Your task to perform on an android device: Show me the best rated vacuum on Walmart. Image 0: 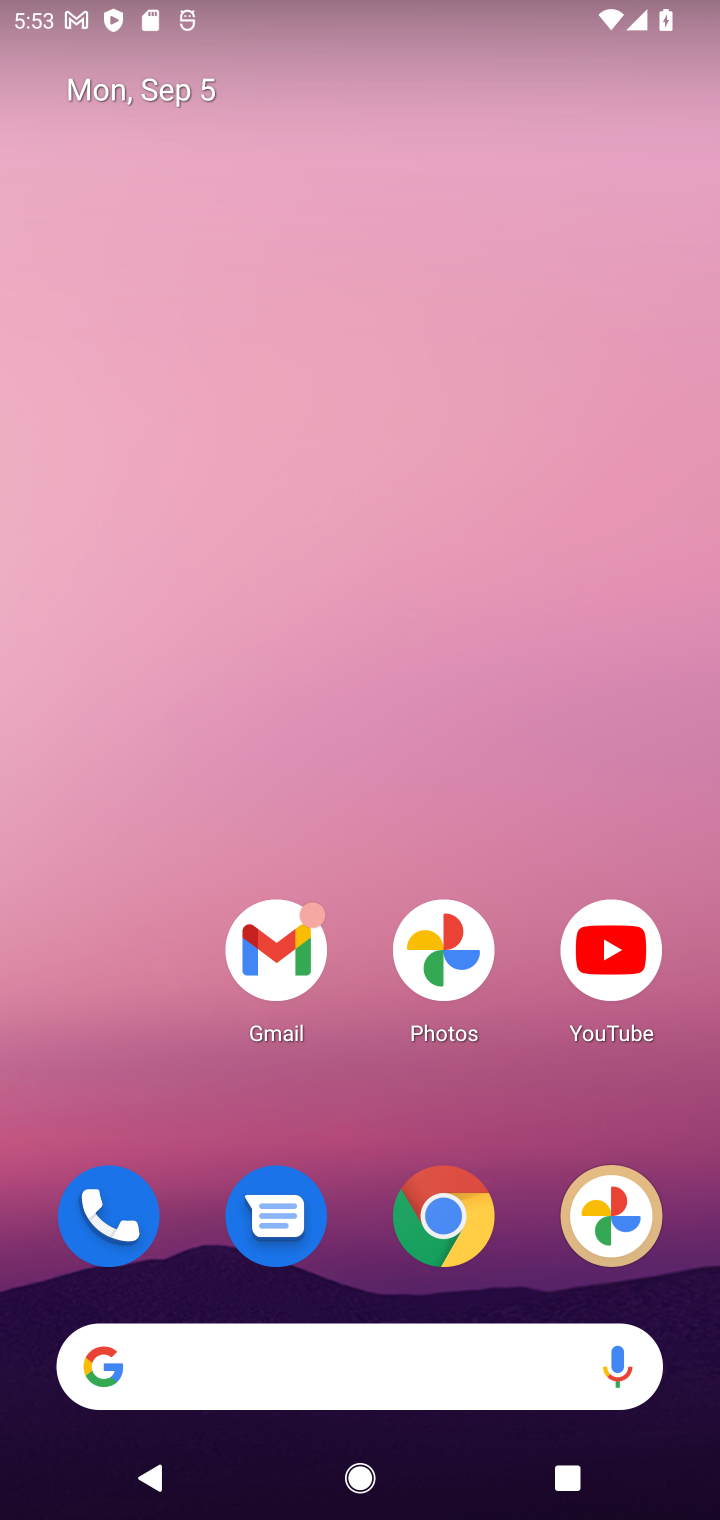
Step 0: click (431, 1225)
Your task to perform on an android device: Show me the best rated vacuum on Walmart. Image 1: 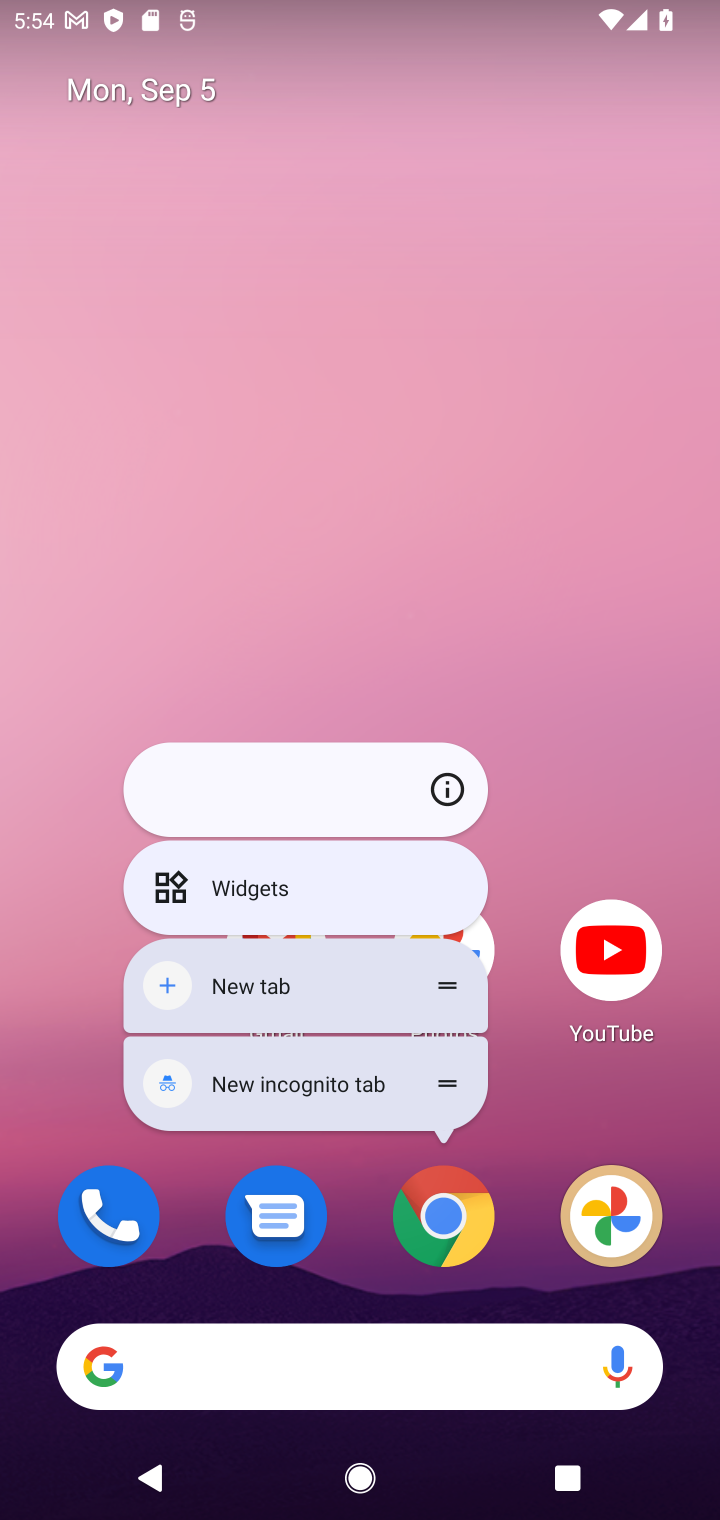
Step 1: click (437, 1200)
Your task to perform on an android device: Show me the best rated vacuum on Walmart. Image 2: 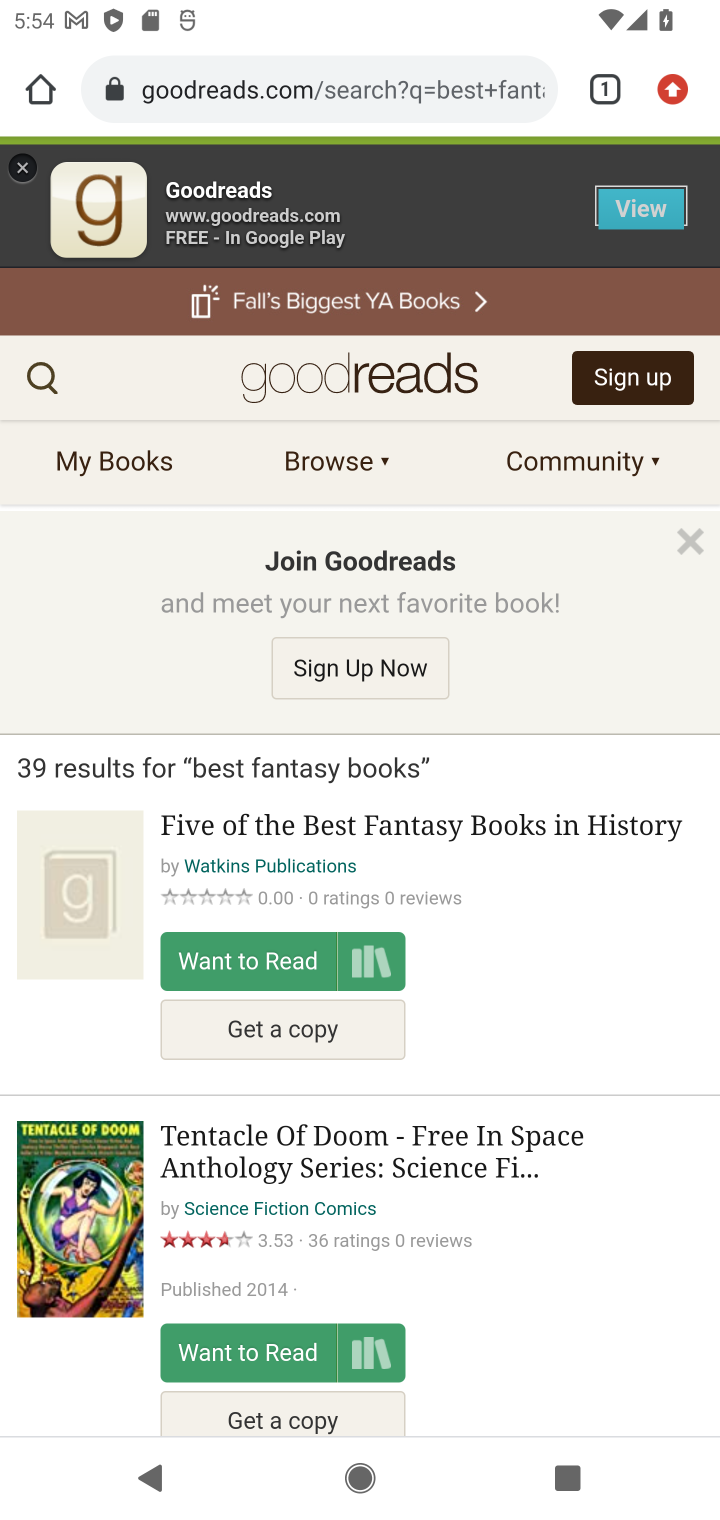
Step 2: click (392, 109)
Your task to perform on an android device: Show me the best rated vacuum on Walmart. Image 3: 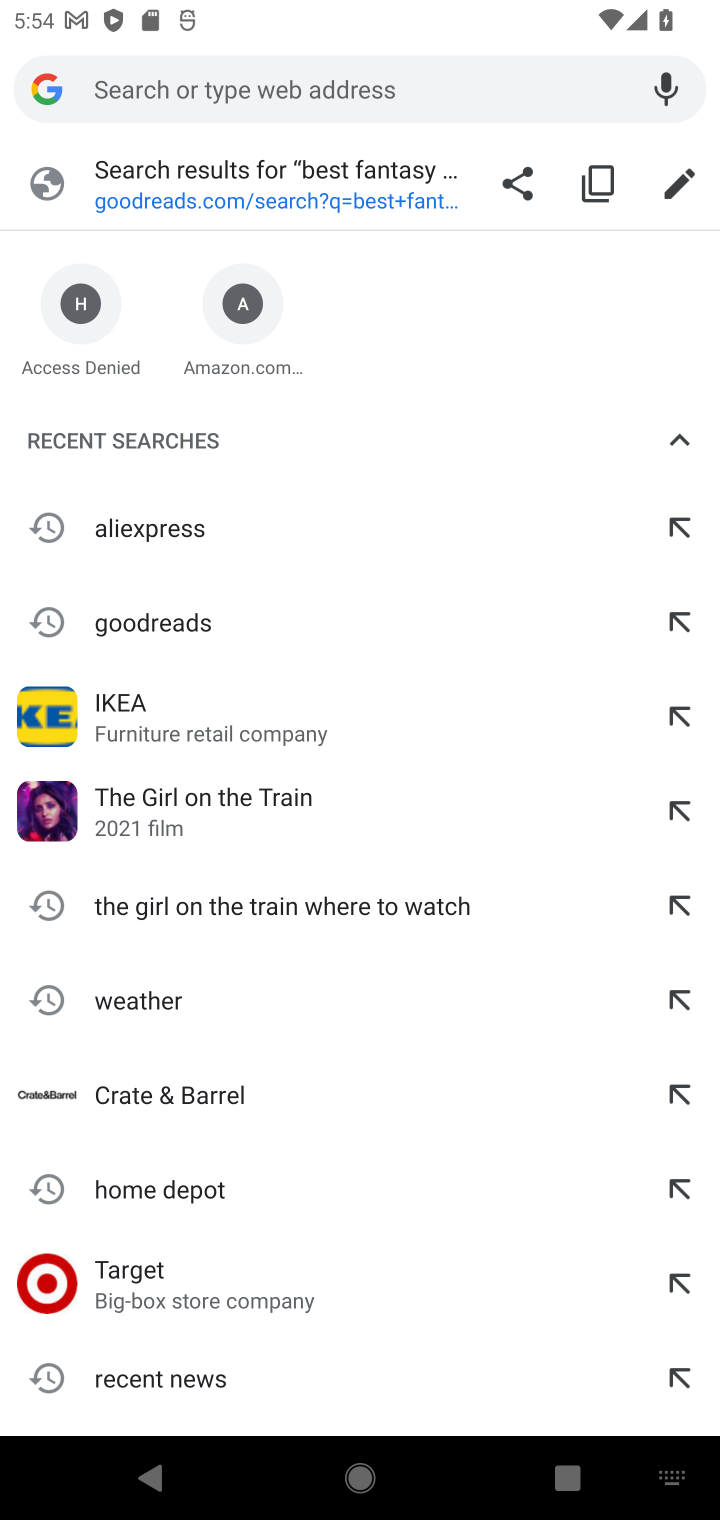
Step 3: type "walmart"
Your task to perform on an android device: Show me the best rated vacuum on Walmart. Image 4: 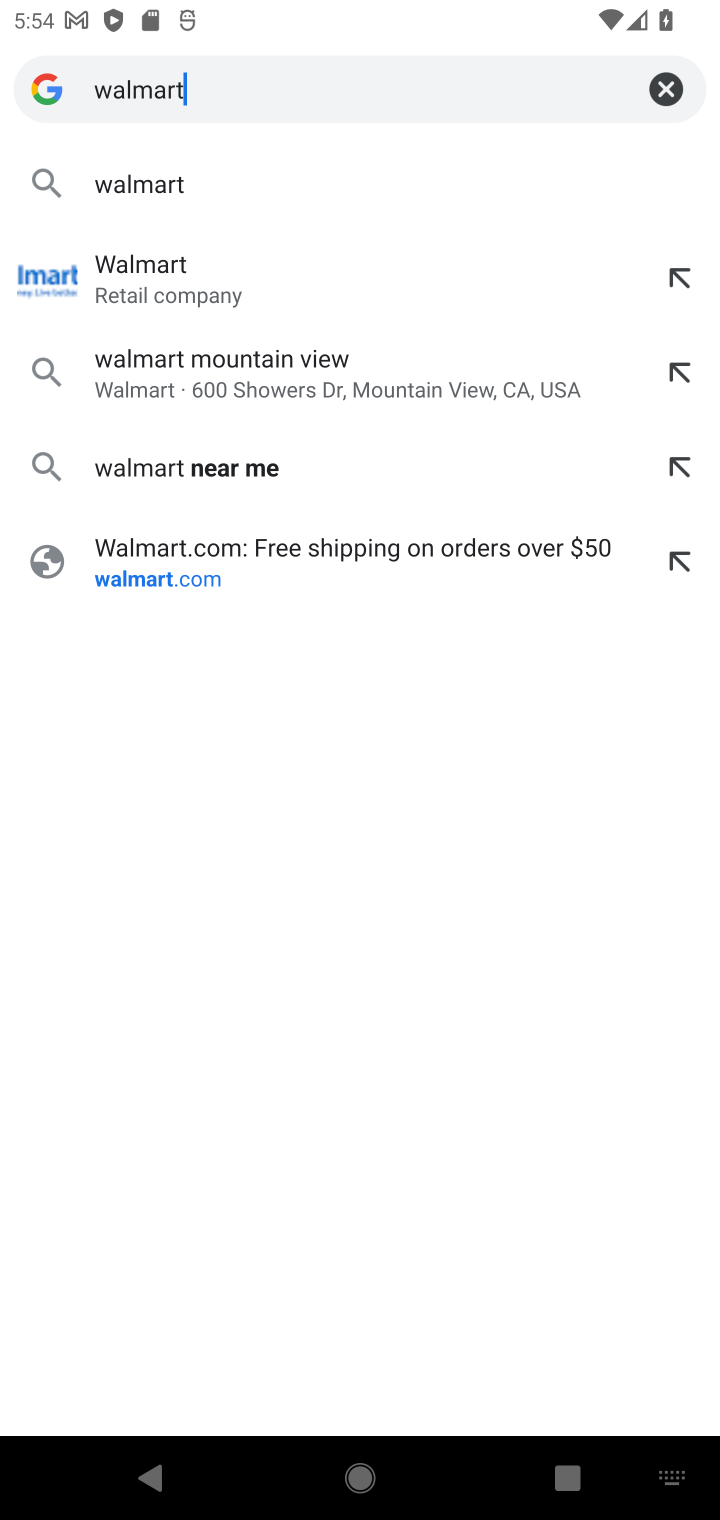
Step 4: click (188, 266)
Your task to perform on an android device: Show me the best rated vacuum on Walmart. Image 5: 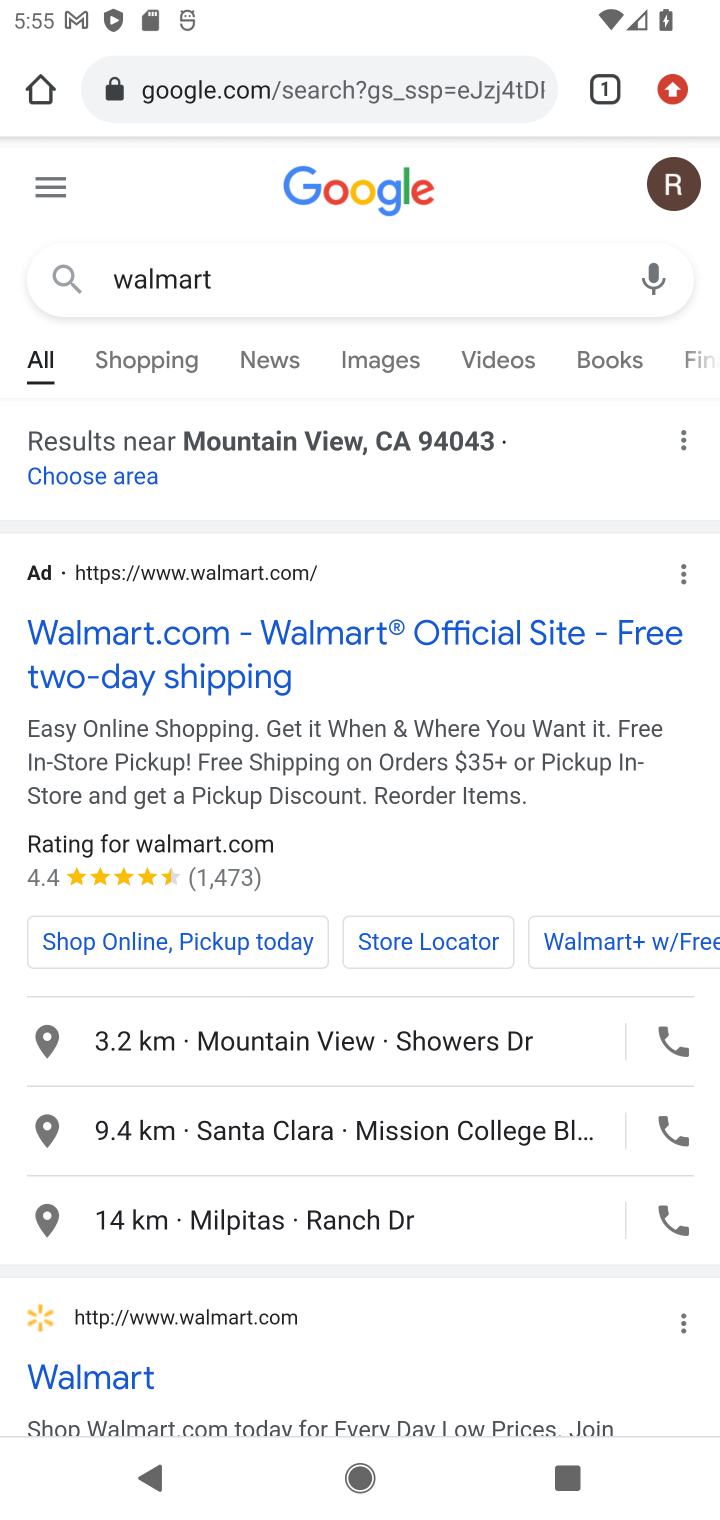
Step 5: drag from (564, 799) to (490, 432)
Your task to perform on an android device: Show me the best rated vacuum on Walmart. Image 6: 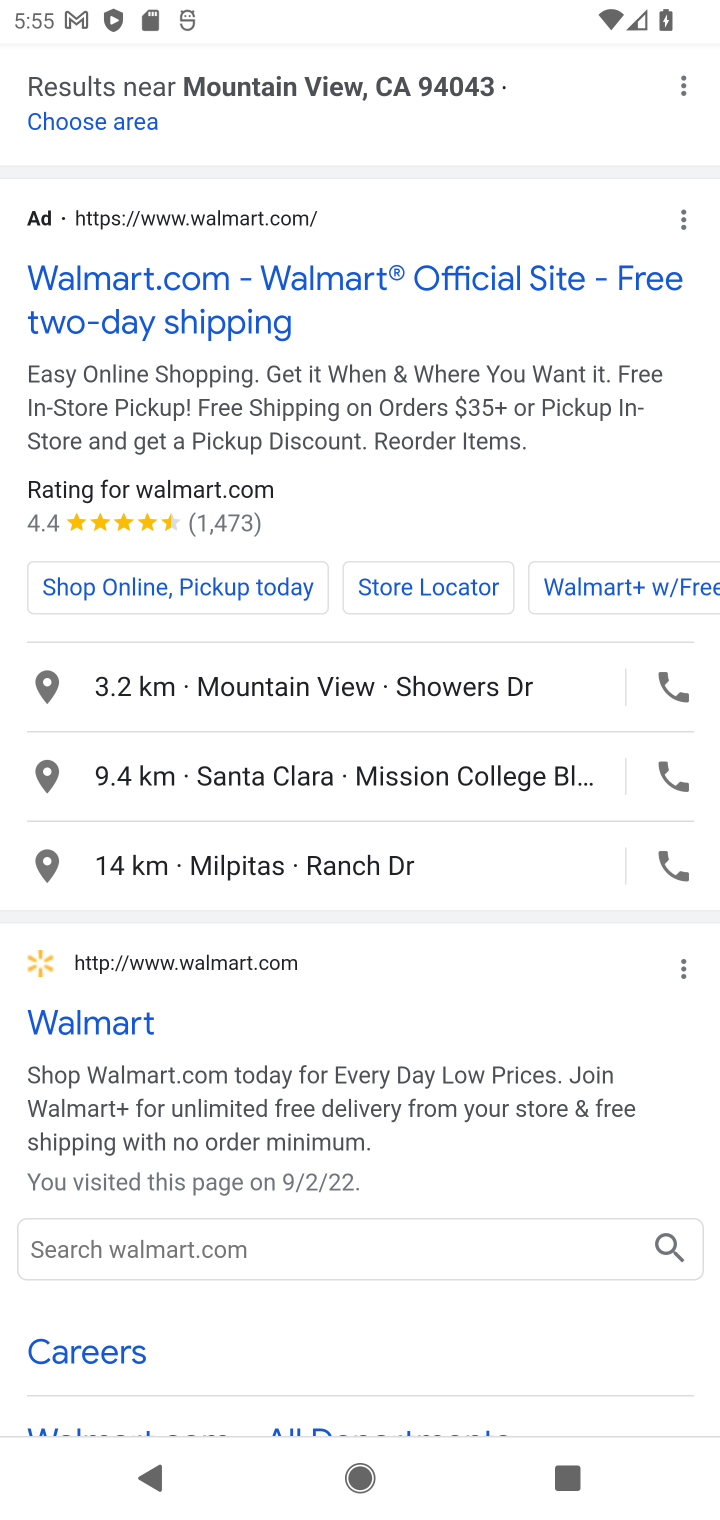
Step 6: click (90, 1026)
Your task to perform on an android device: Show me the best rated vacuum on Walmart. Image 7: 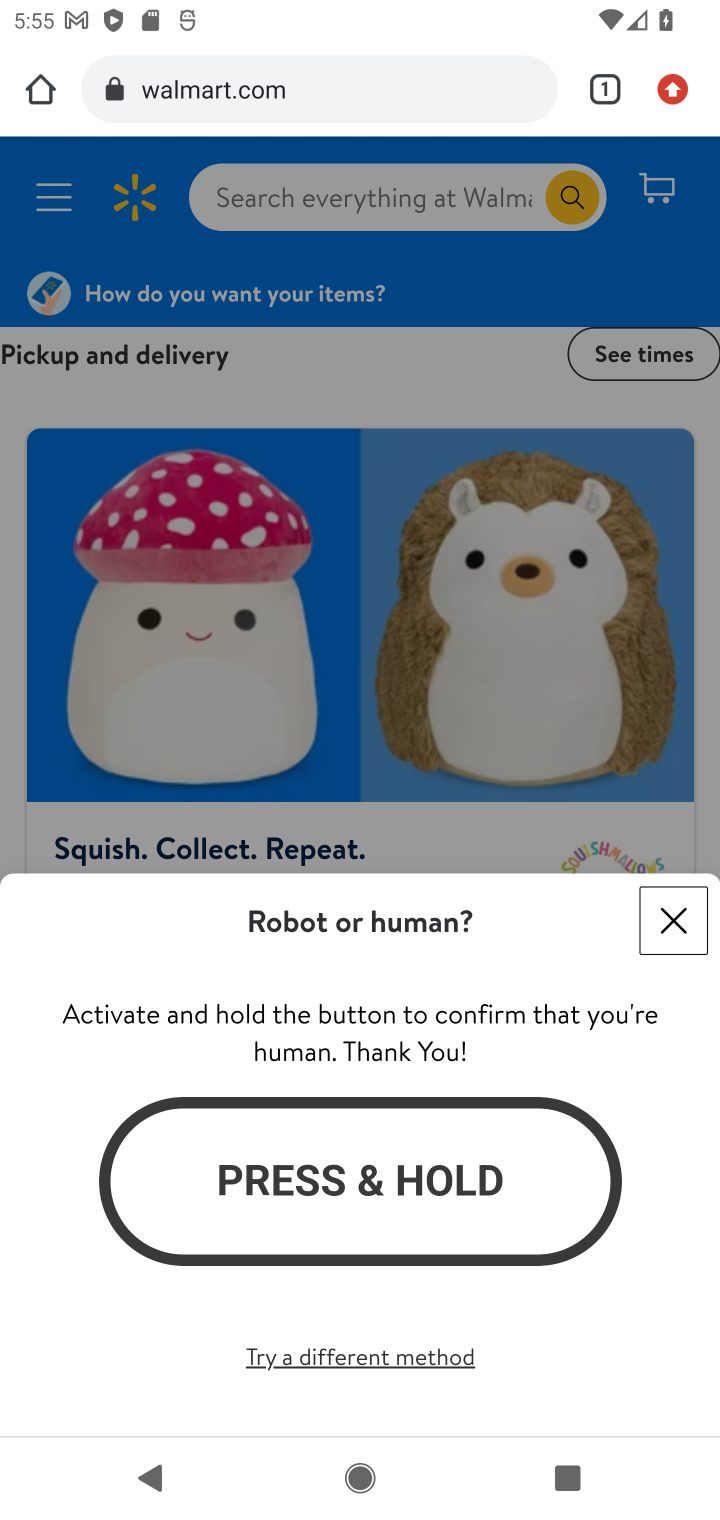
Step 7: click (677, 930)
Your task to perform on an android device: Show me the best rated vacuum on Walmart. Image 8: 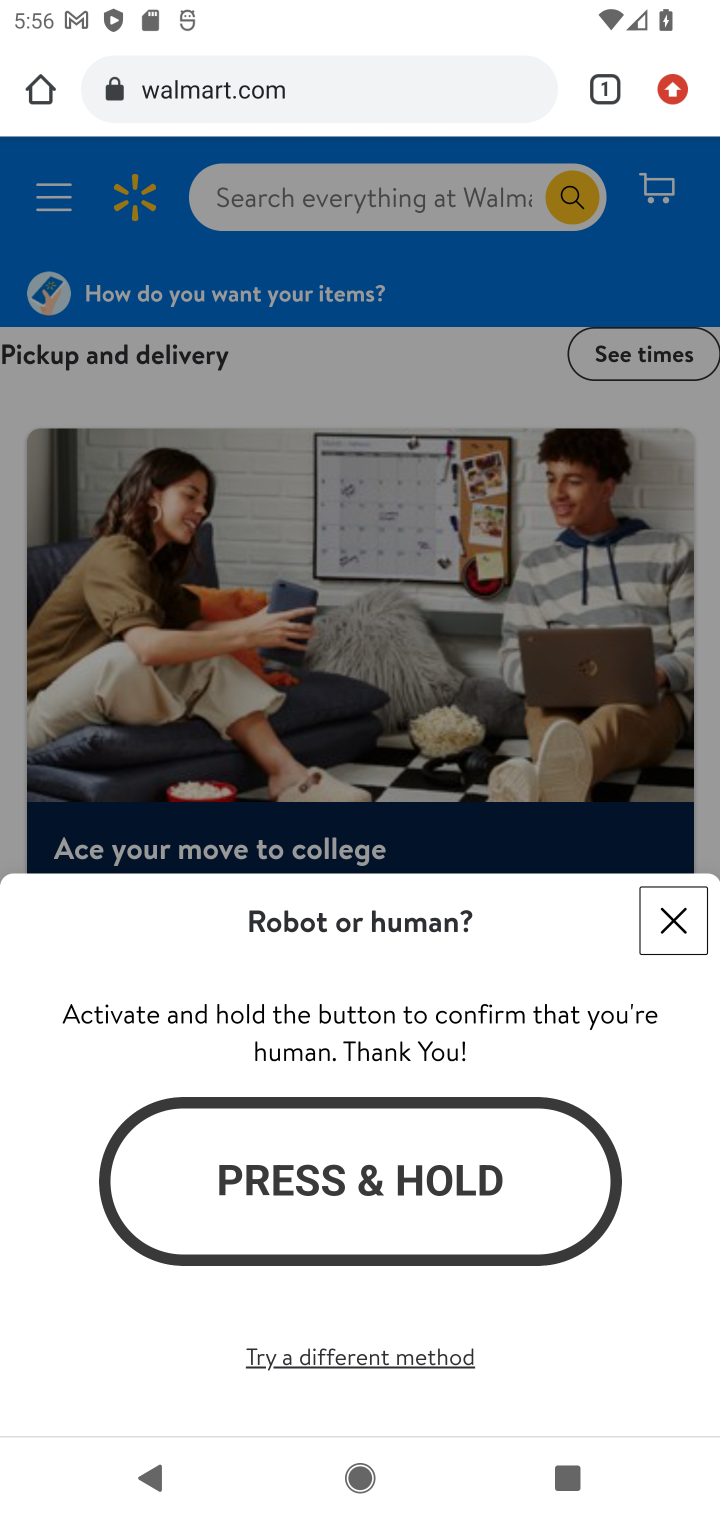
Step 8: click (667, 907)
Your task to perform on an android device: Show me the best rated vacuum on Walmart. Image 9: 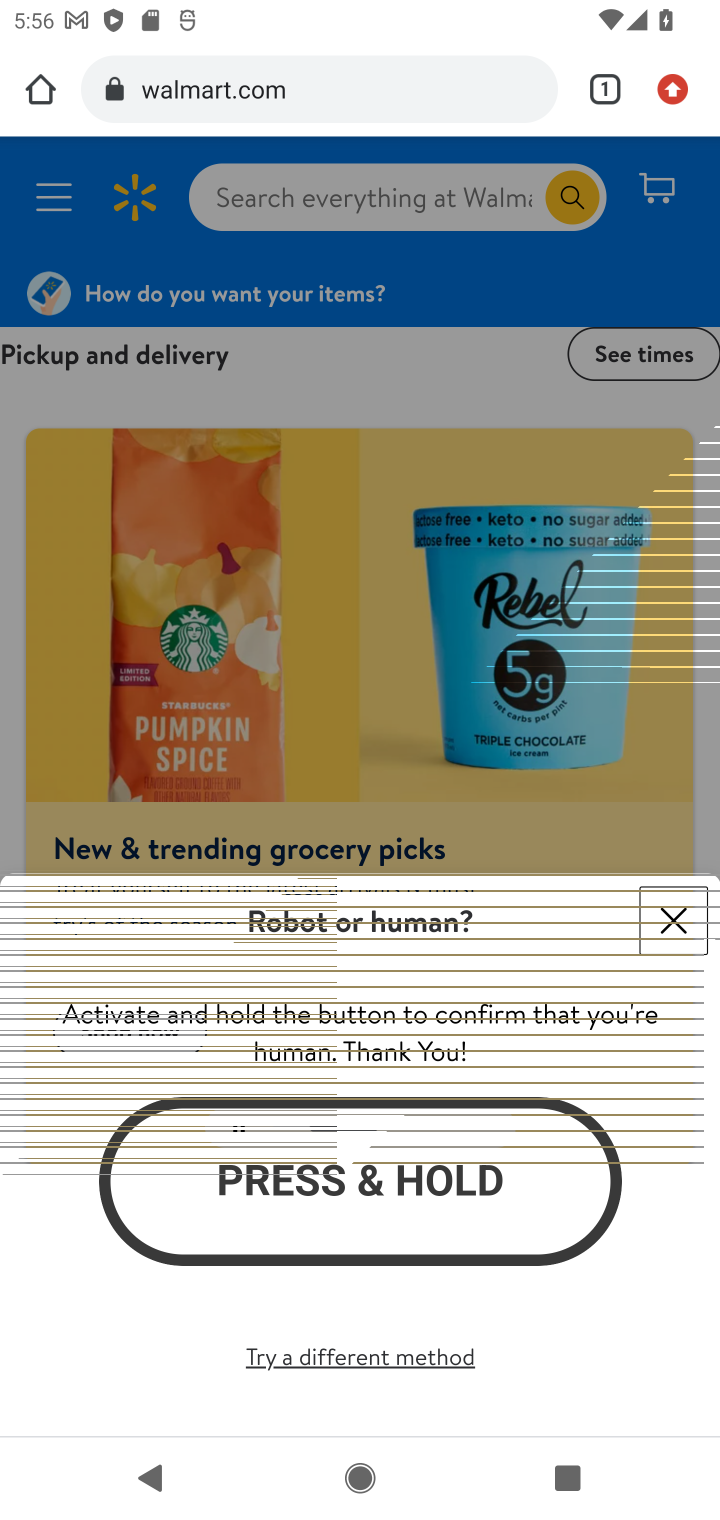
Step 9: click (444, 1152)
Your task to perform on an android device: Show me the best rated vacuum on Walmart. Image 10: 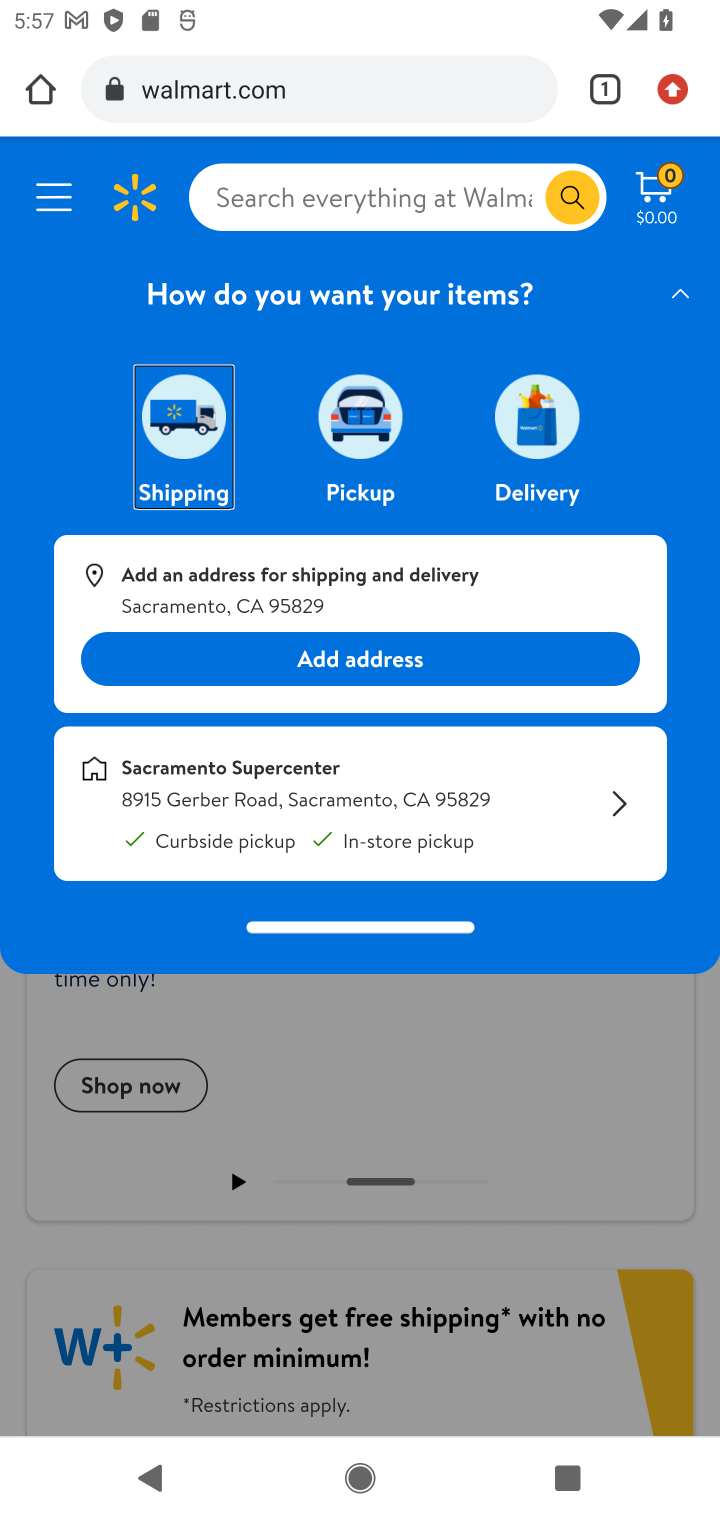
Step 10: click (364, 207)
Your task to perform on an android device: Show me the best rated vacuum on Walmart. Image 11: 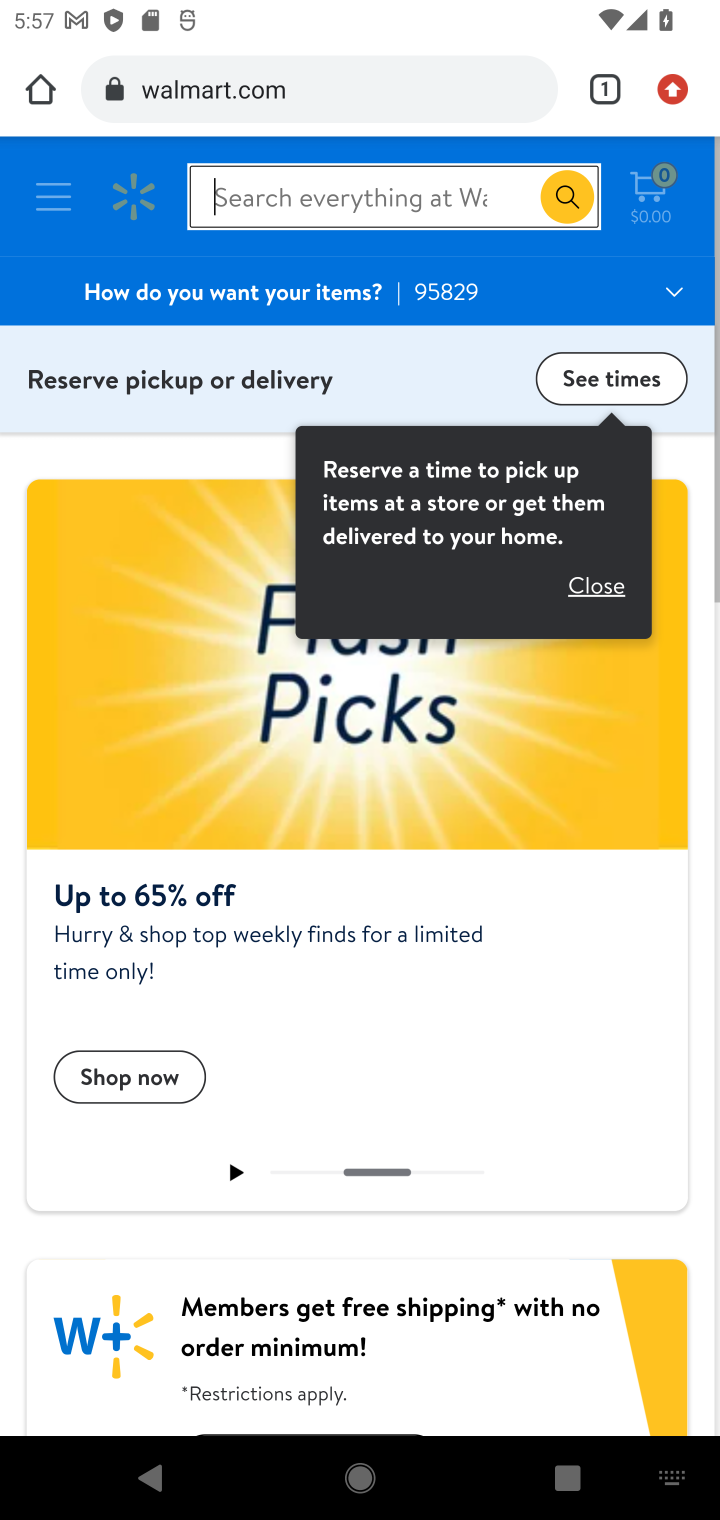
Step 11: click (397, 201)
Your task to perform on an android device: Show me the best rated vacuum on Walmart. Image 12: 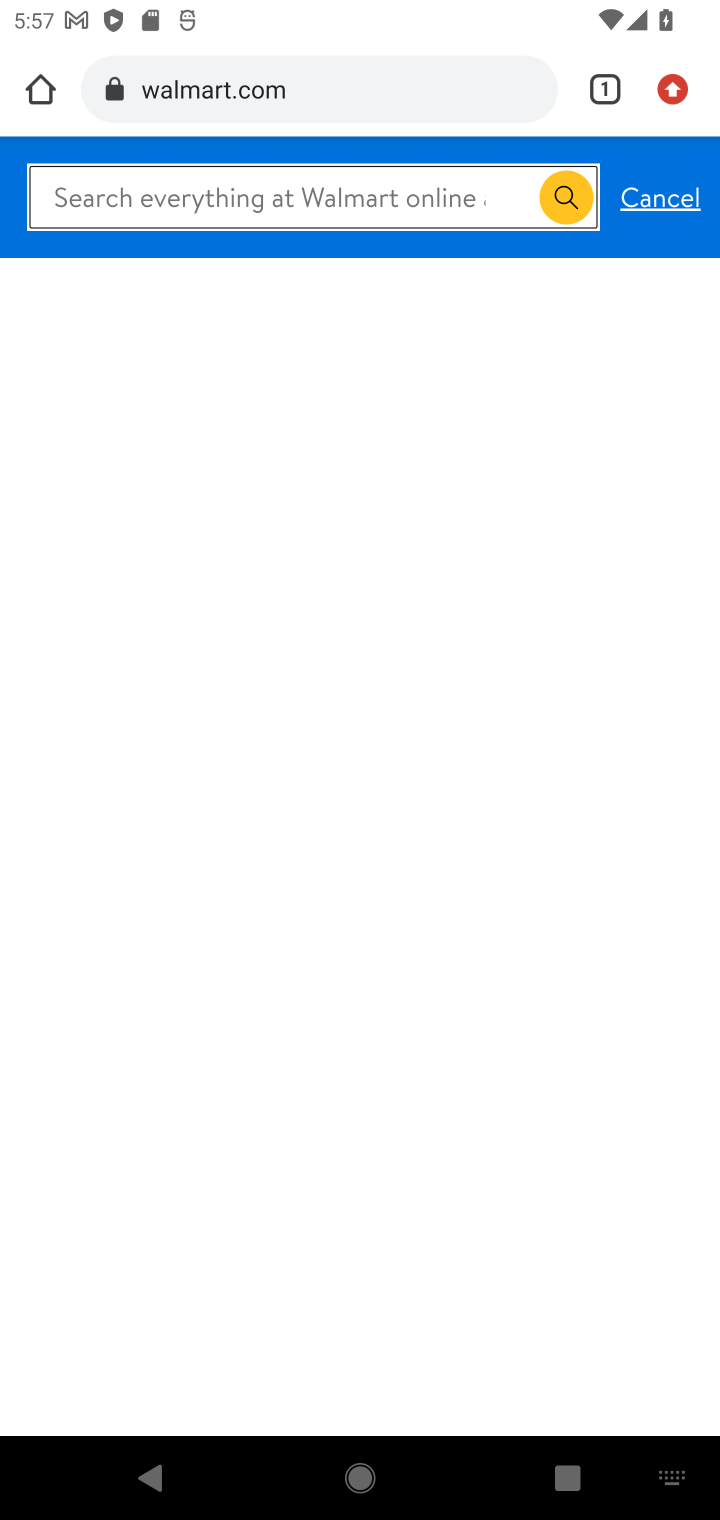
Step 12: type "vacuum"
Your task to perform on an android device: Show me the best rated vacuum on Walmart. Image 13: 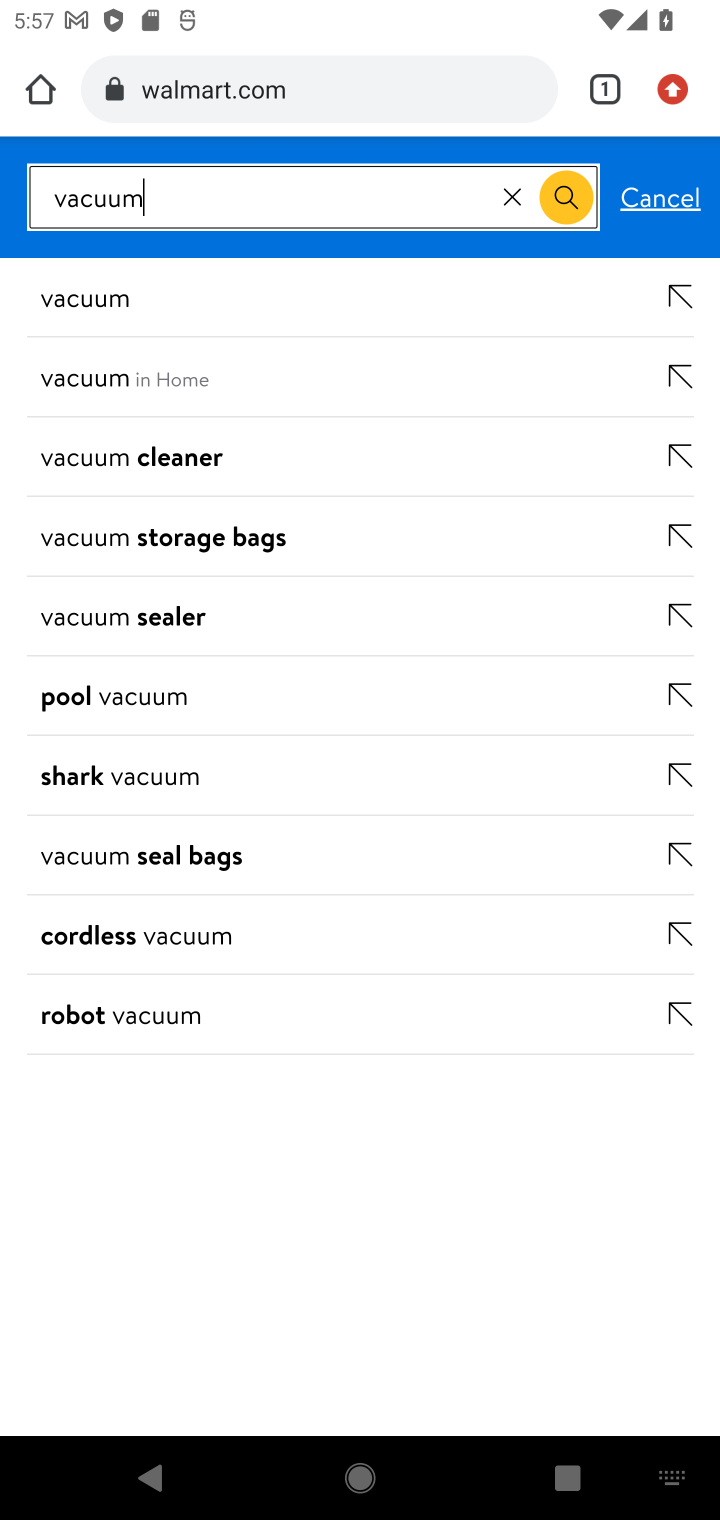
Step 13: click (509, 195)
Your task to perform on an android device: Show me the best rated vacuum on Walmart. Image 14: 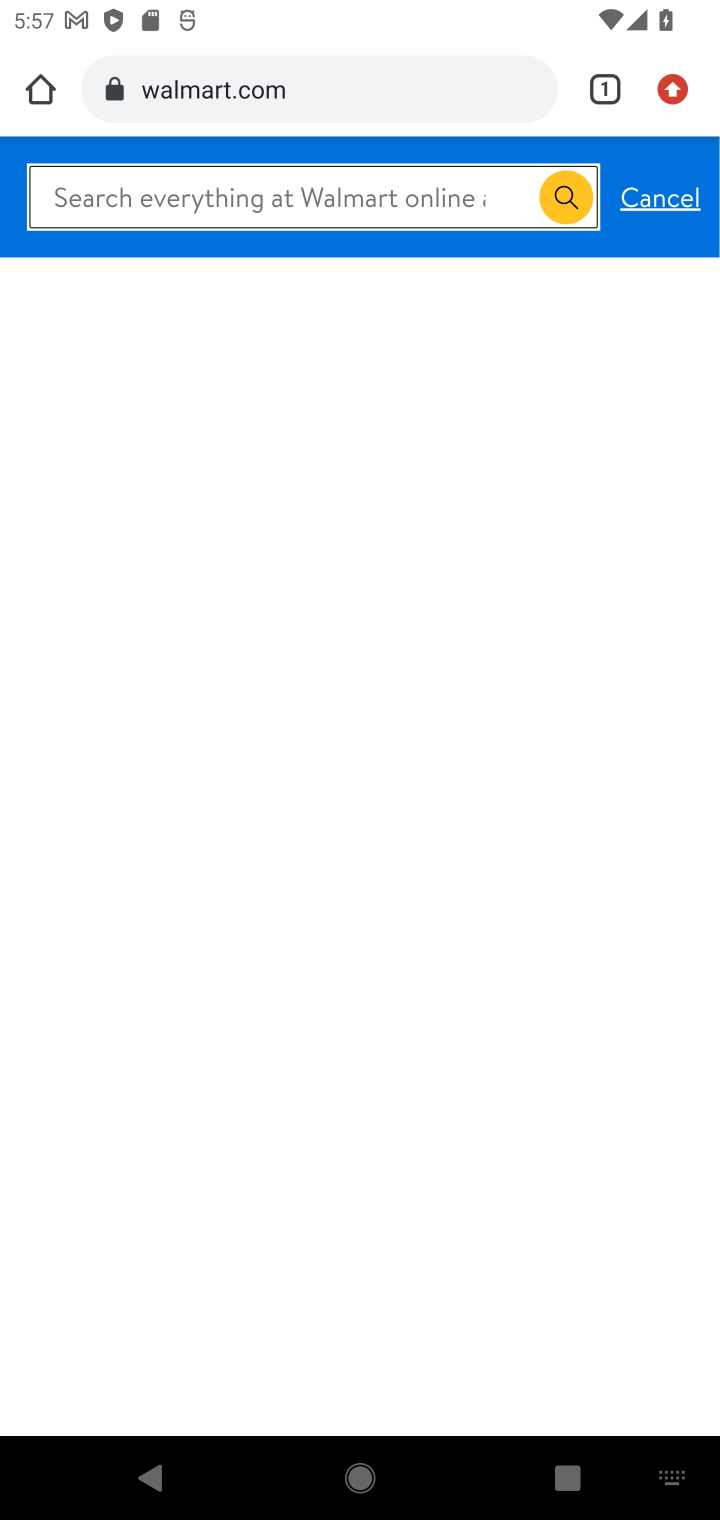
Step 14: type "best rated vacuum"
Your task to perform on an android device: Show me the best rated vacuum on Walmart. Image 15: 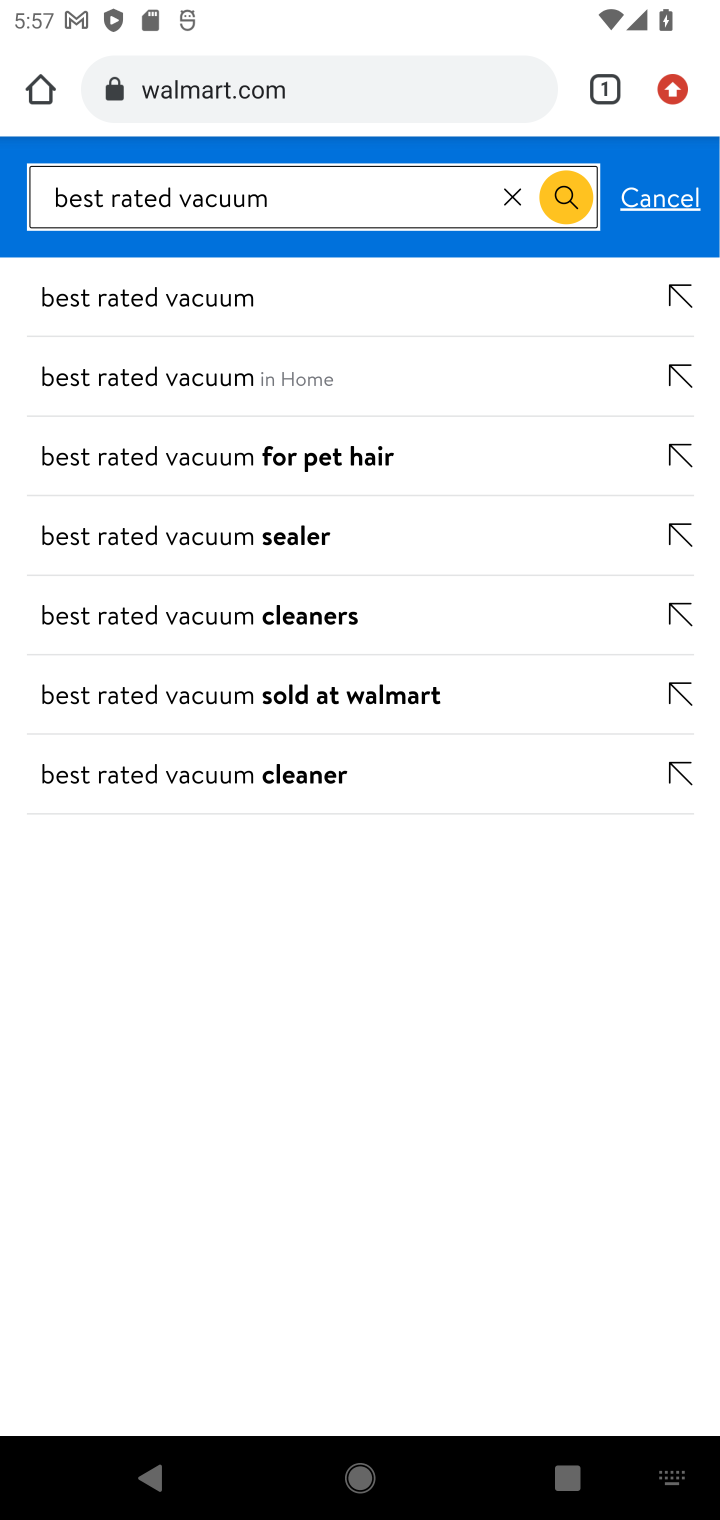
Step 15: click (388, 300)
Your task to perform on an android device: Show me the best rated vacuum on Walmart. Image 16: 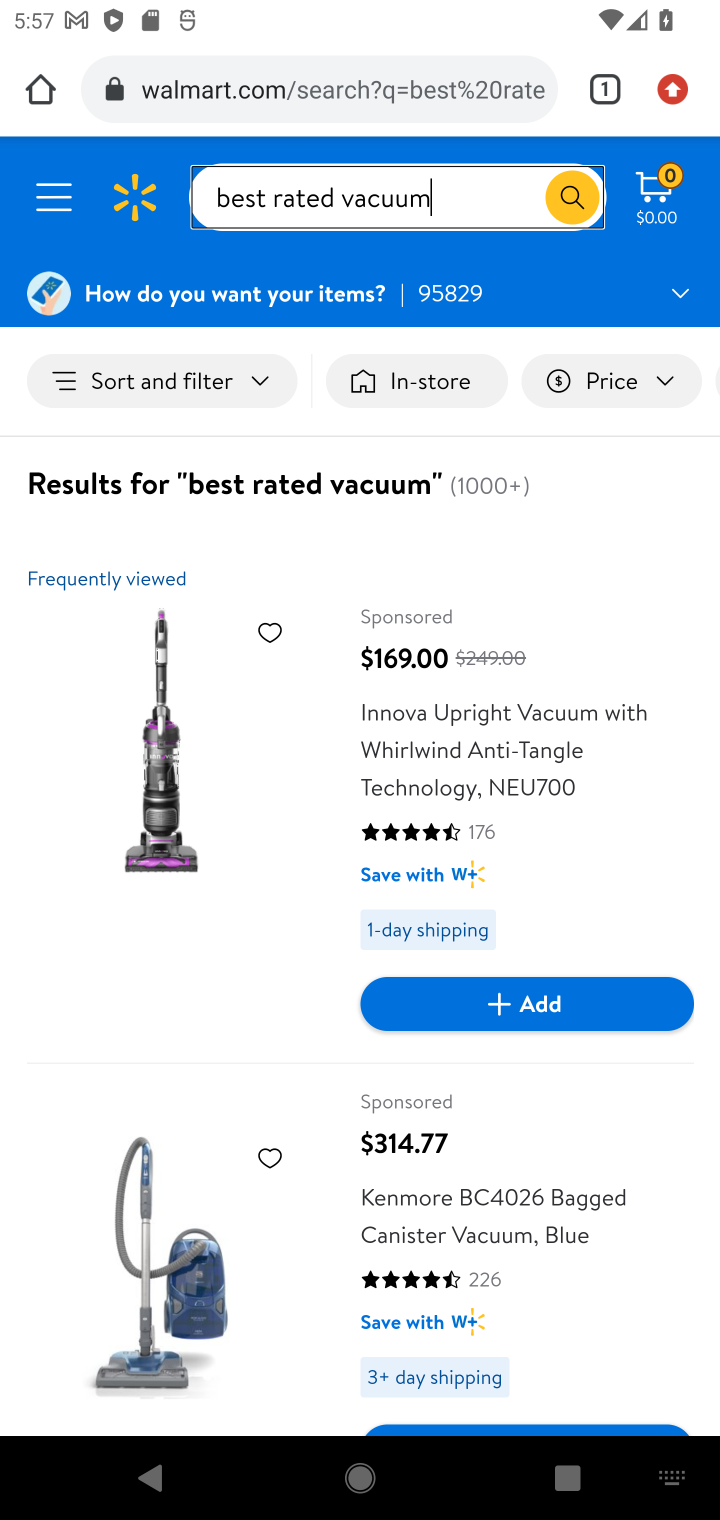
Step 16: task complete